Your task to perform on an android device: toggle pop-ups in chrome Image 0: 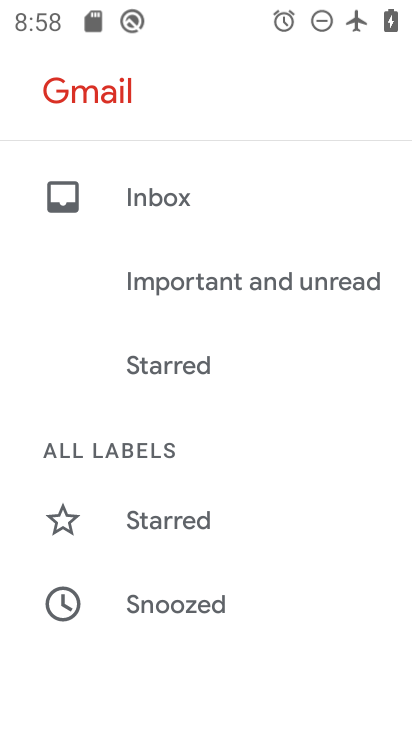
Step 0: press home button
Your task to perform on an android device: toggle pop-ups in chrome Image 1: 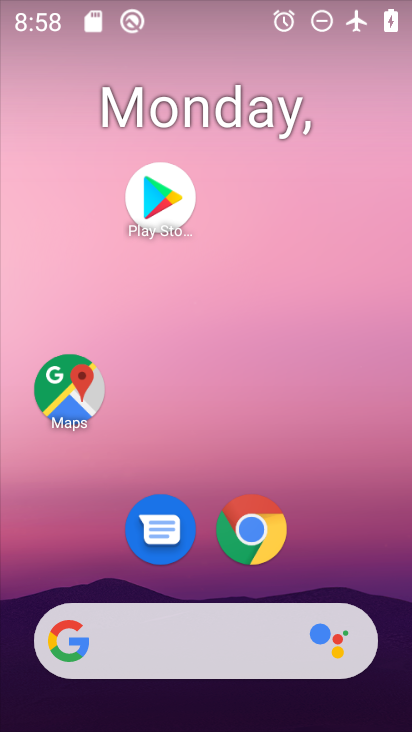
Step 1: click (251, 529)
Your task to perform on an android device: toggle pop-ups in chrome Image 2: 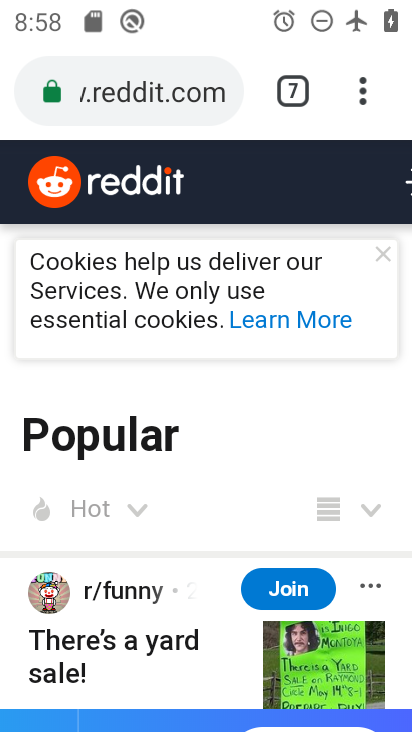
Step 2: click (365, 86)
Your task to perform on an android device: toggle pop-ups in chrome Image 3: 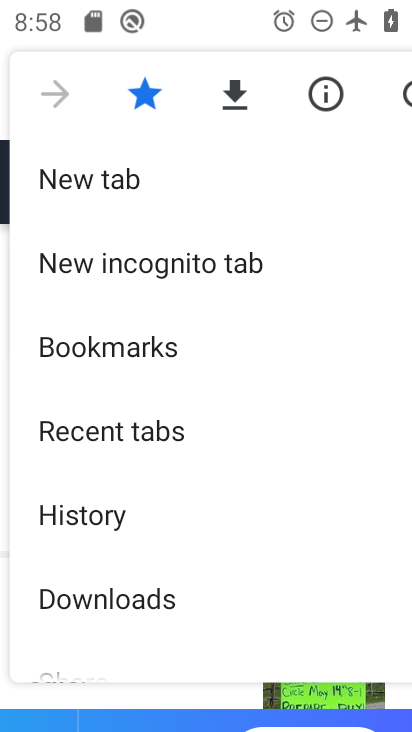
Step 3: drag from (252, 508) to (165, 191)
Your task to perform on an android device: toggle pop-ups in chrome Image 4: 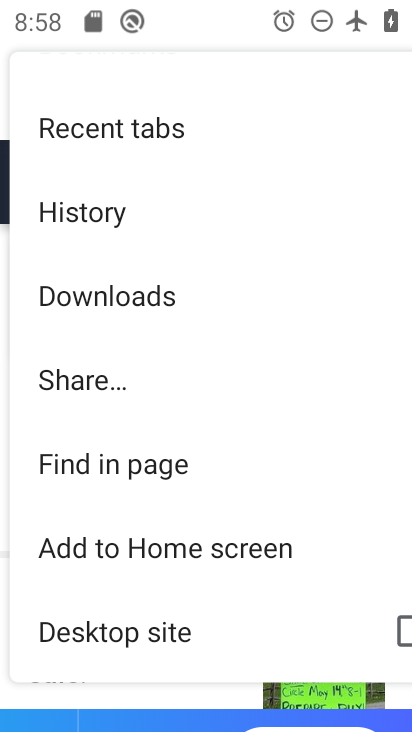
Step 4: drag from (237, 581) to (209, 318)
Your task to perform on an android device: toggle pop-ups in chrome Image 5: 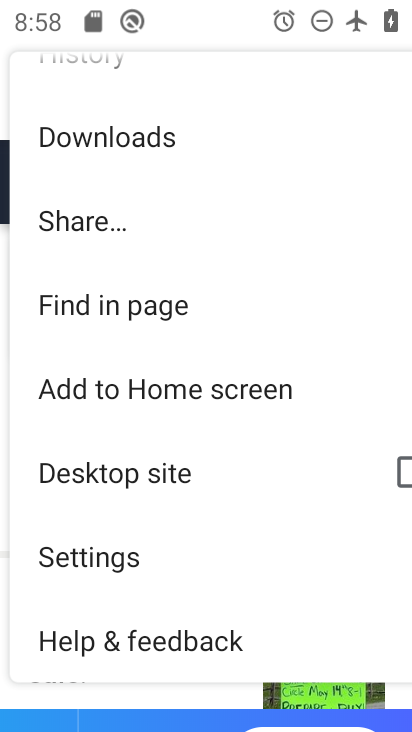
Step 5: click (97, 552)
Your task to perform on an android device: toggle pop-ups in chrome Image 6: 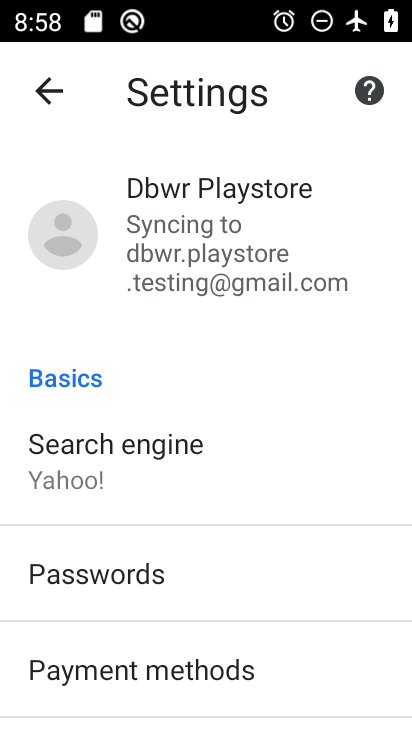
Step 6: drag from (261, 549) to (216, 63)
Your task to perform on an android device: toggle pop-ups in chrome Image 7: 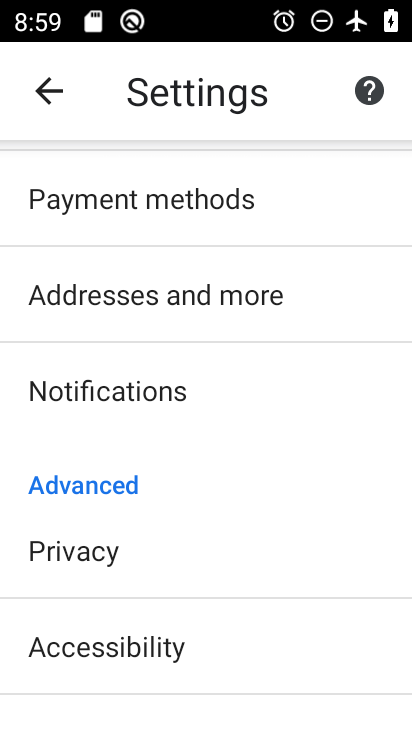
Step 7: drag from (267, 479) to (237, 150)
Your task to perform on an android device: toggle pop-ups in chrome Image 8: 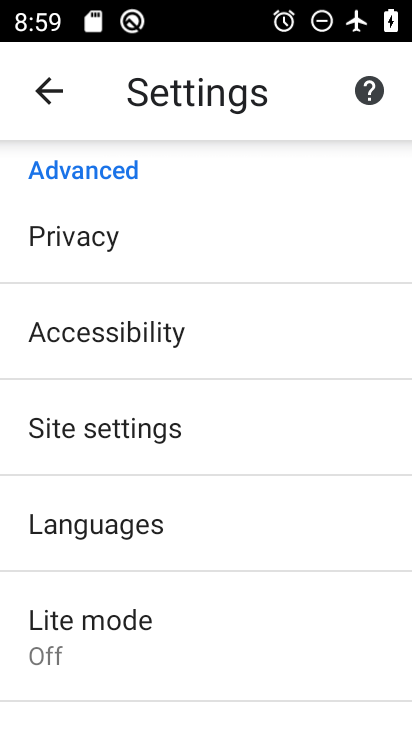
Step 8: drag from (218, 551) to (184, 195)
Your task to perform on an android device: toggle pop-ups in chrome Image 9: 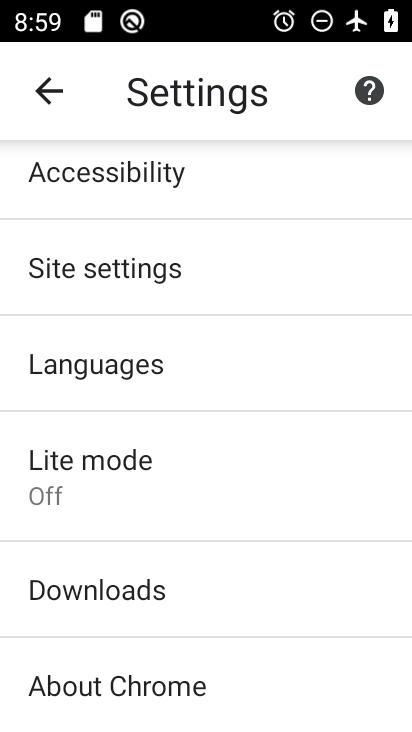
Step 9: click (109, 266)
Your task to perform on an android device: toggle pop-ups in chrome Image 10: 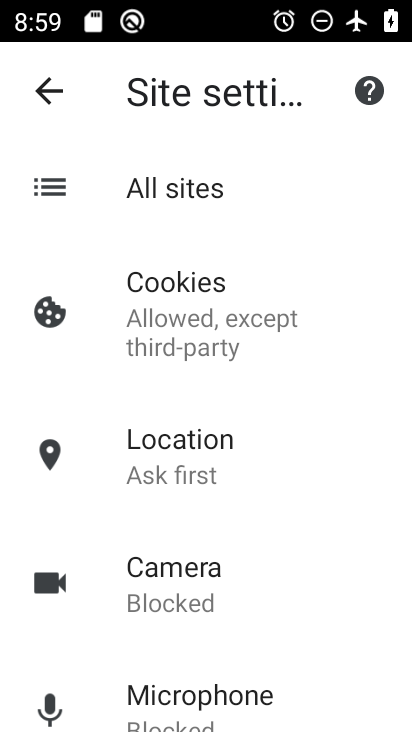
Step 10: drag from (284, 610) to (247, 326)
Your task to perform on an android device: toggle pop-ups in chrome Image 11: 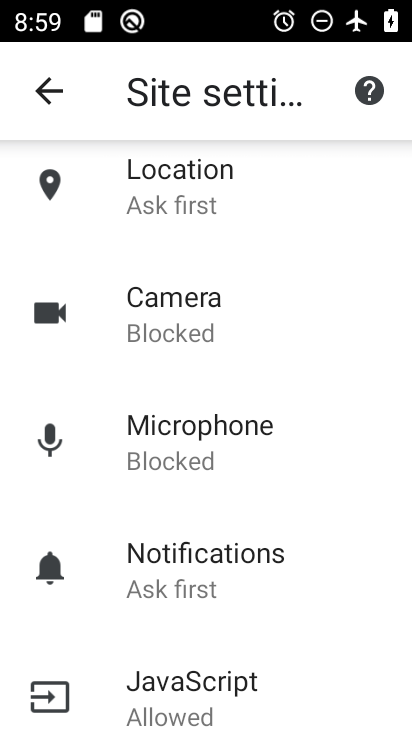
Step 11: drag from (284, 615) to (266, 297)
Your task to perform on an android device: toggle pop-ups in chrome Image 12: 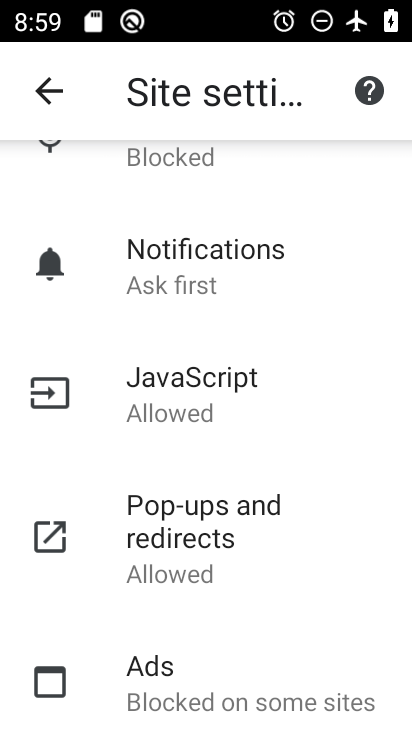
Step 12: click (183, 513)
Your task to perform on an android device: toggle pop-ups in chrome Image 13: 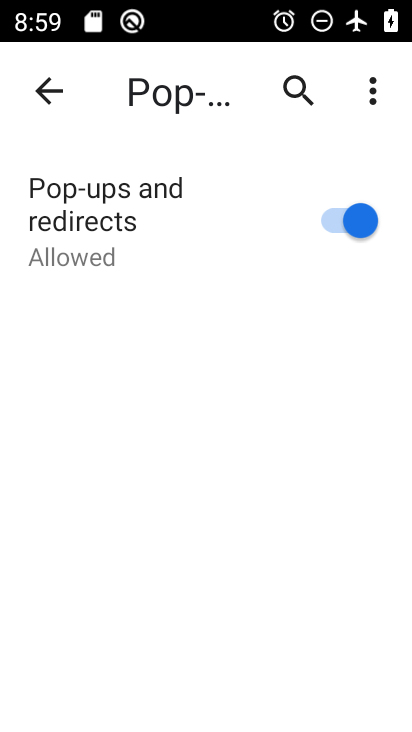
Step 13: click (351, 209)
Your task to perform on an android device: toggle pop-ups in chrome Image 14: 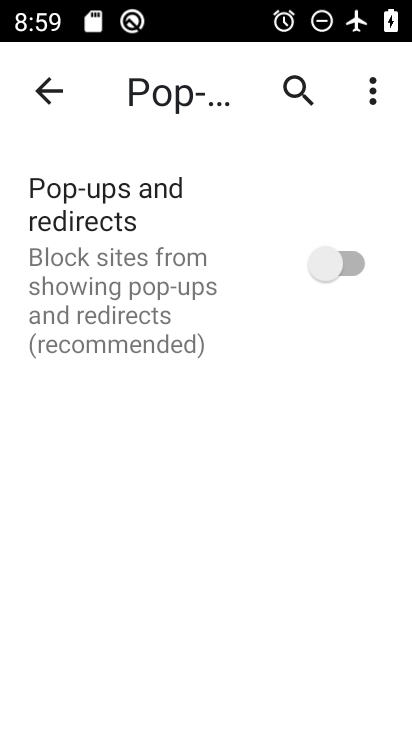
Step 14: task complete